Your task to perform on an android device: Open Google Chrome and open the bookmarks view Image 0: 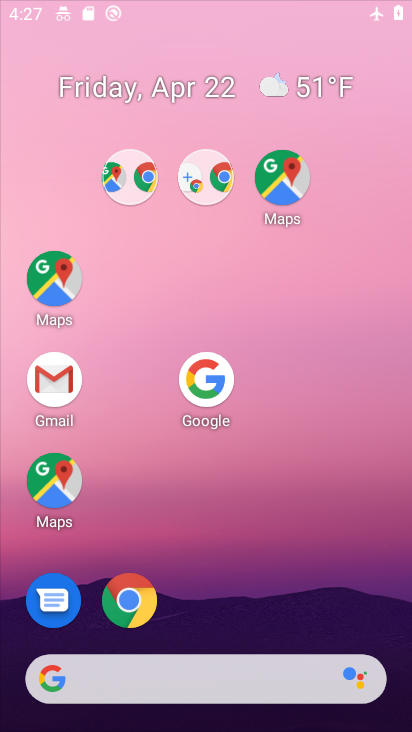
Step 0: click (104, 104)
Your task to perform on an android device: Open Google Chrome and open the bookmarks view Image 1: 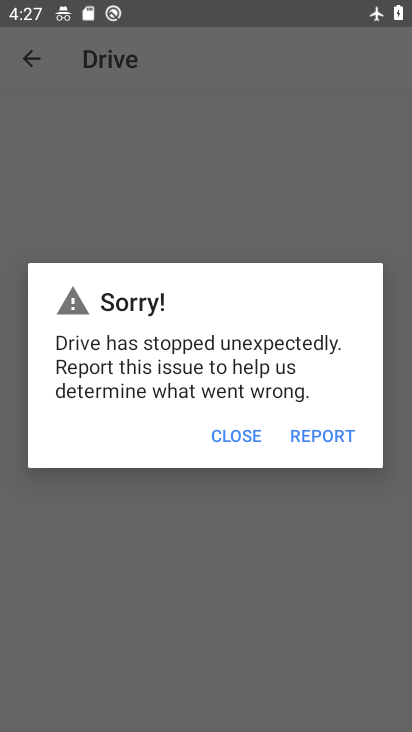
Step 1: drag from (215, 558) to (160, 154)
Your task to perform on an android device: Open Google Chrome and open the bookmarks view Image 2: 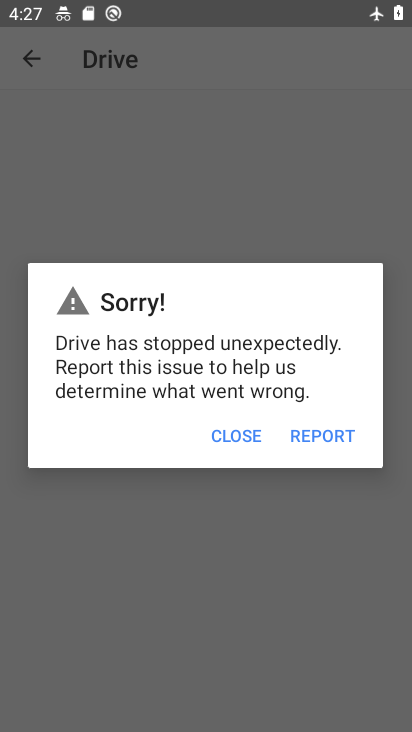
Step 2: click (246, 437)
Your task to perform on an android device: Open Google Chrome and open the bookmarks view Image 3: 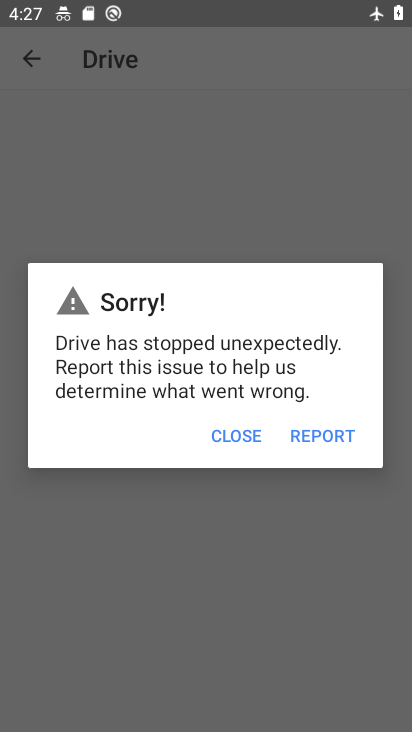
Step 3: click (246, 437)
Your task to perform on an android device: Open Google Chrome and open the bookmarks view Image 4: 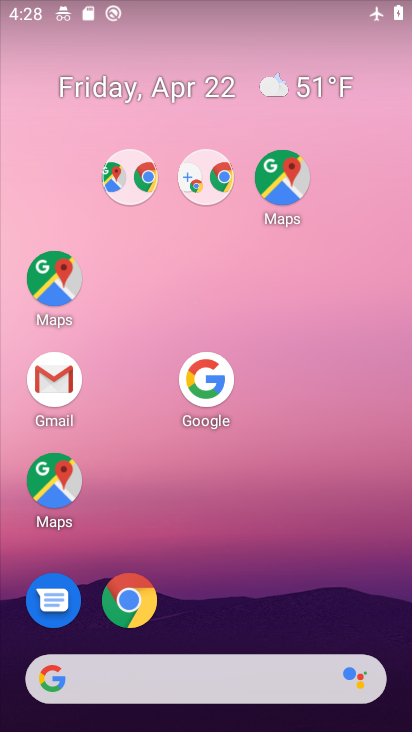
Step 4: click (132, 601)
Your task to perform on an android device: Open Google Chrome and open the bookmarks view Image 5: 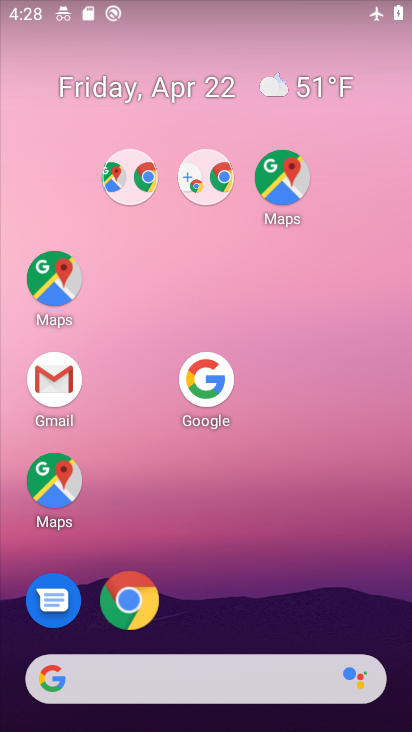
Step 5: click (139, 598)
Your task to perform on an android device: Open Google Chrome and open the bookmarks view Image 6: 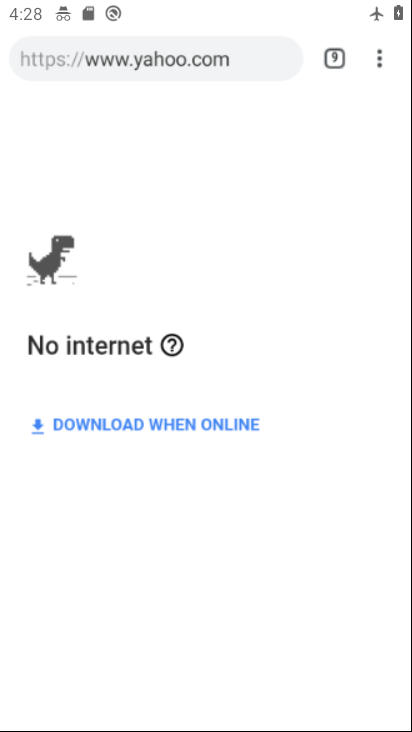
Step 6: drag from (238, 401) to (122, 128)
Your task to perform on an android device: Open Google Chrome and open the bookmarks view Image 7: 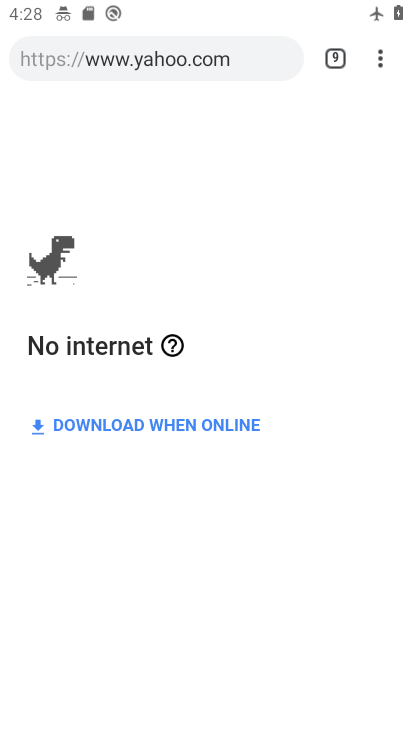
Step 7: press home button
Your task to perform on an android device: Open Google Chrome and open the bookmarks view Image 8: 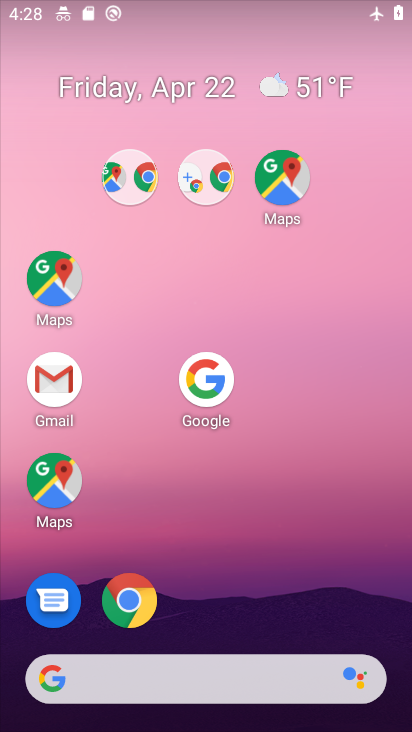
Step 8: drag from (239, 506) to (85, 125)
Your task to perform on an android device: Open Google Chrome and open the bookmarks view Image 9: 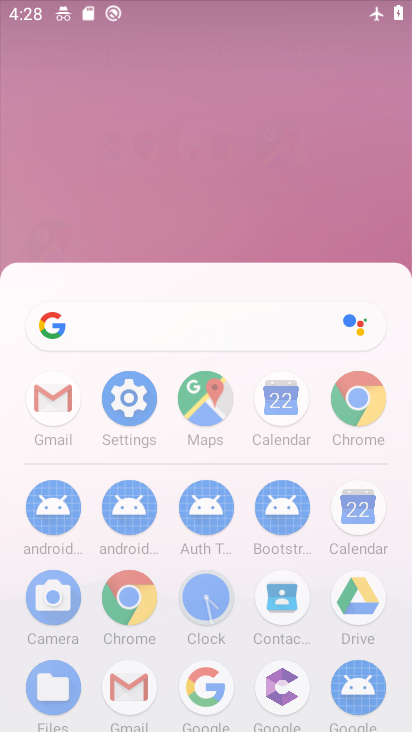
Step 9: drag from (302, 541) to (117, 43)
Your task to perform on an android device: Open Google Chrome and open the bookmarks view Image 10: 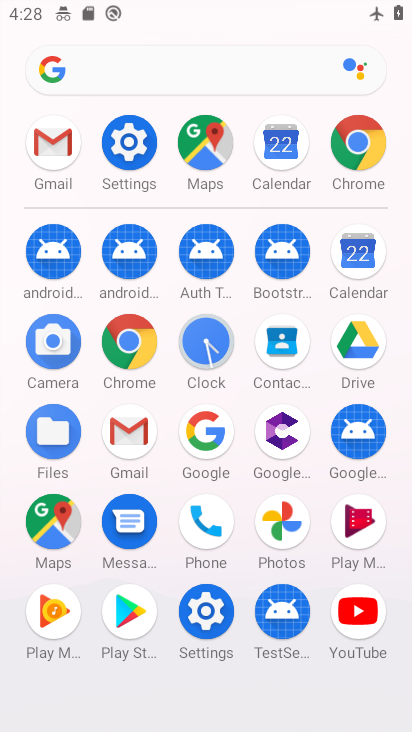
Step 10: click (361, 141)
Your task to perform on an android device: Open Google Chrome and open the bookmarks view Image 11: 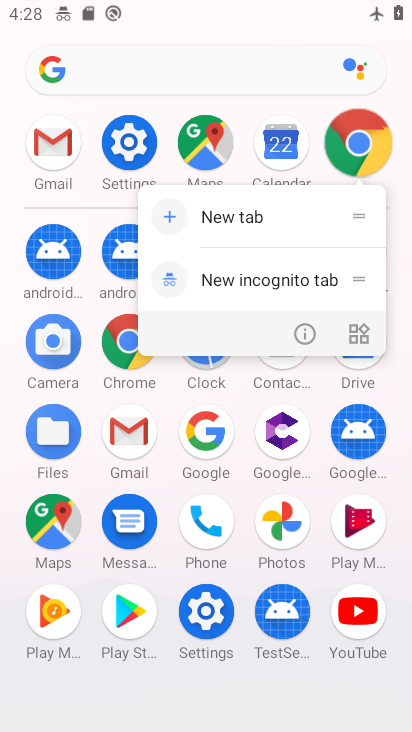
Step 11: click (362, 144)
Your task to perform on an android device: Open Google Chrome and open the bookmarks view Image 12: 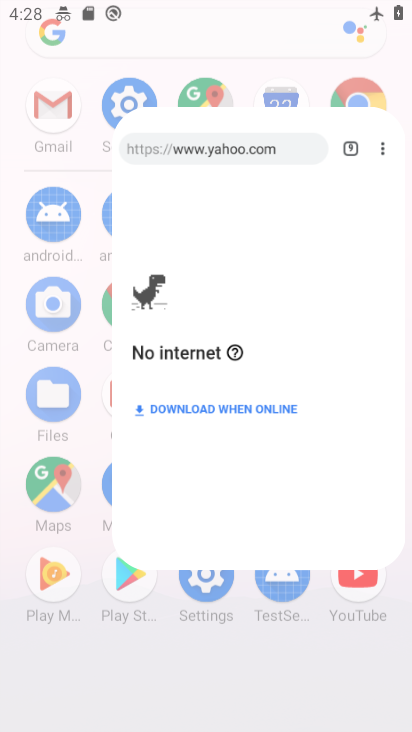
Step 12: click (214, 226)
Your task to perform on an android device: Open Google Chrome and open the bookmarks view Image 13: 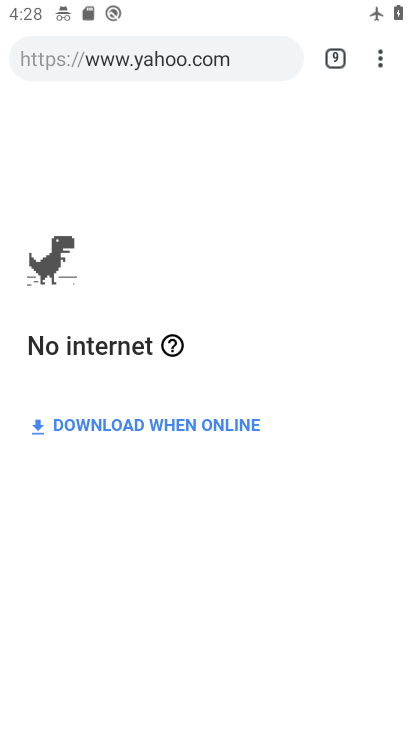
Step 13: drag from (203, 8) to (233, 476)
Your task to perform on an android device: Open Google Chrome and open the bookmarks view Image 14: 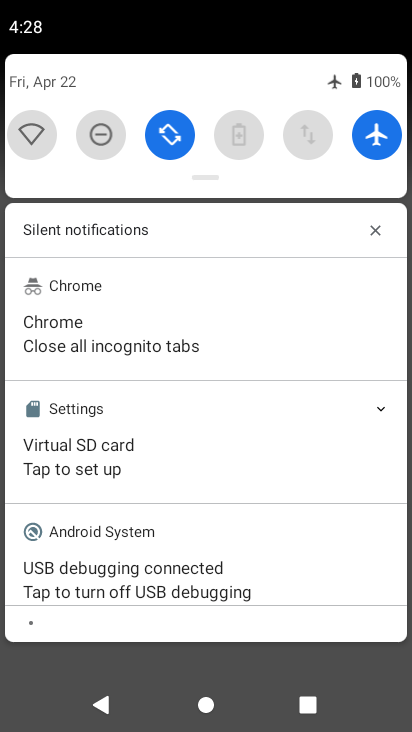
Step 14: click (370, 121)
Your task to perform on an android device: Open Google Chrome and open the bookmarks view Image 15: 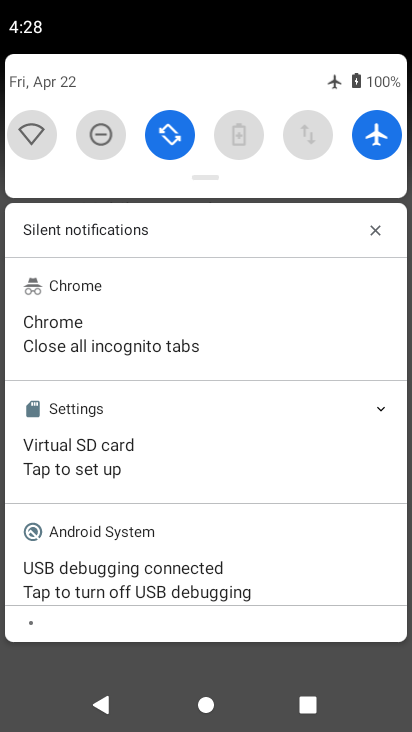
Step 15: click (374, 134)
Your task to perform on an android device: Open Google Chrome and open the bookmarks view Image 16: 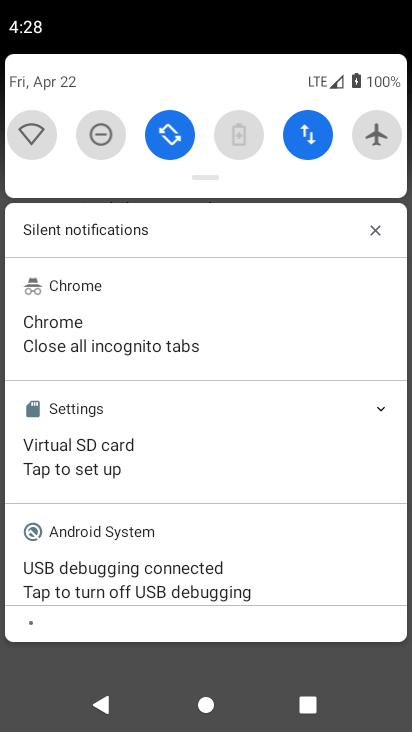
Step 16: click (34, 132)
Your task to perform on an android device: Open Google Chrome and open the bookmarks view Image 17: 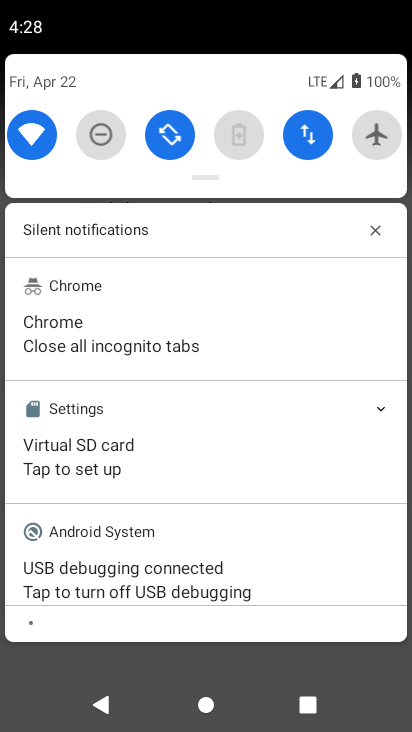
Step 17: click (373, 225)
Your task to perform on an android device: Open Google Chrome and open the bookmarks view Image 18: 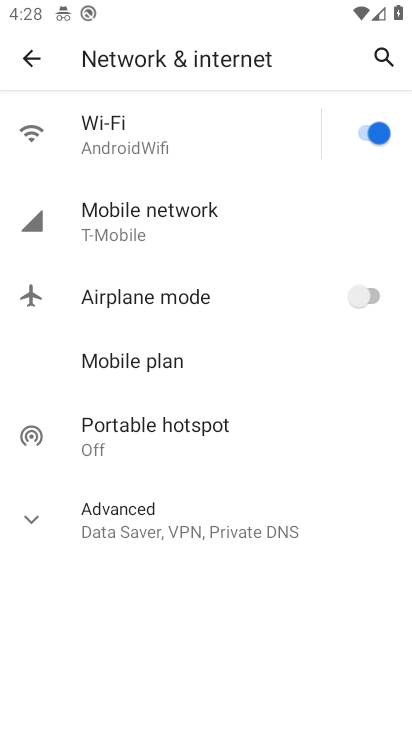
Step 18: click (31, 61)
Your task to perform on an android device: Open Google Chrome and open the bookmarks view Image 19: 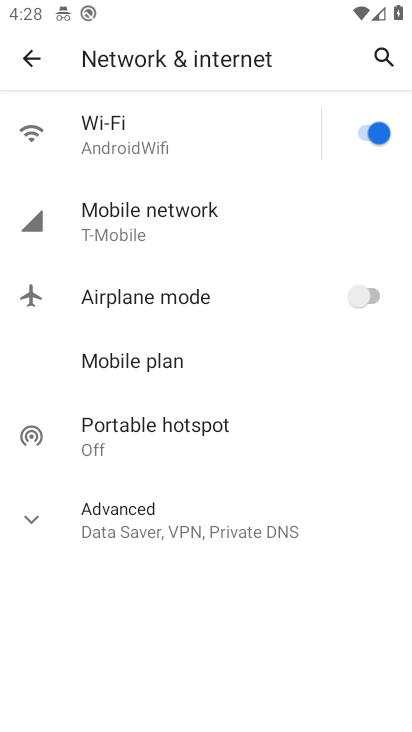
Step 19: click (32, 60)
Your task to perform on an android device: Open Google Chrome and open the bookmarks view Image 20: 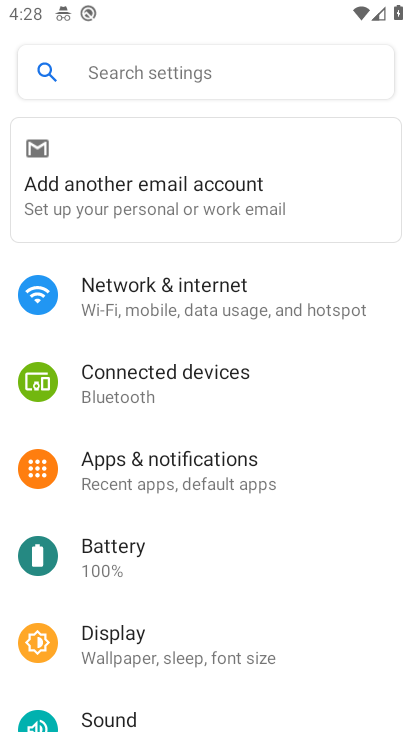
Step 20: press home button
Your task to perform on an android device: Open Google Chrome and open the bookmarks view Image 21: 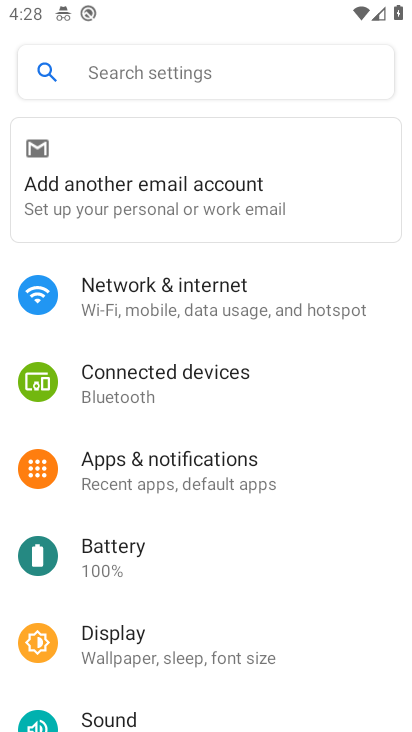
Step 21: press home button
Your task to perform on an android device: Open Google Chrome and open the bookmarks view Image 22: 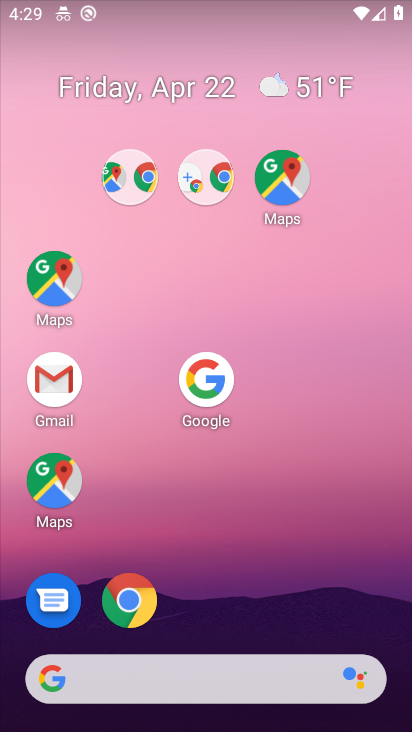
Step 22: click (385, 28)
Your task to perform on an android device: Open Google Chrome and open the bookmarks view Image 23: 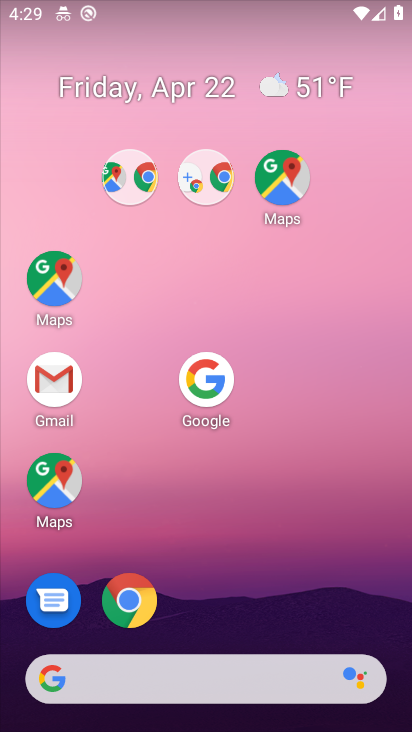
Step 23: drag from (181, 289) to (143, 174)
Your task to perform on an android device: Open Google Chrome and open the bookmarks view Image 24: 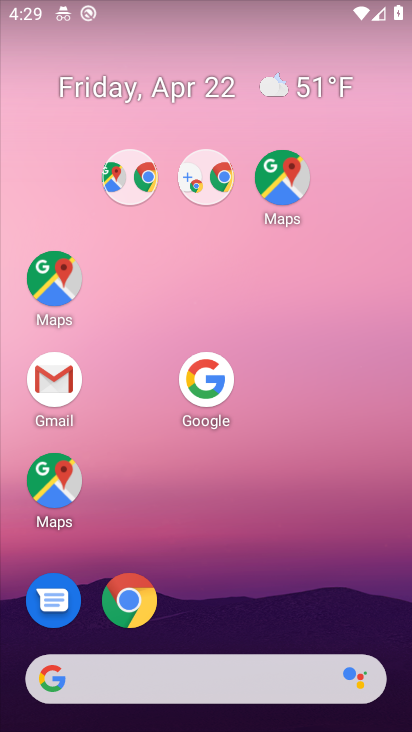
Step 24: click (142, 122)
Your task to perform on an android device: Open Google Chrome and open the bookmarks view Image 25: 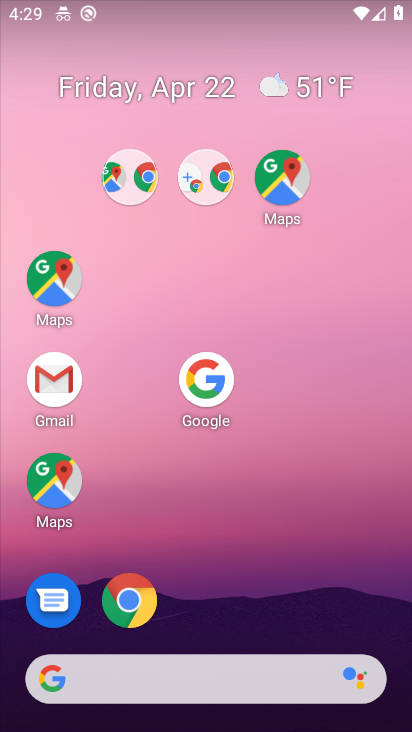
Step 25: drag from (260, 580) to (106, 16)
Your task to perform on an android device: Open Google Chrome and open the bookmarks view Image 26: 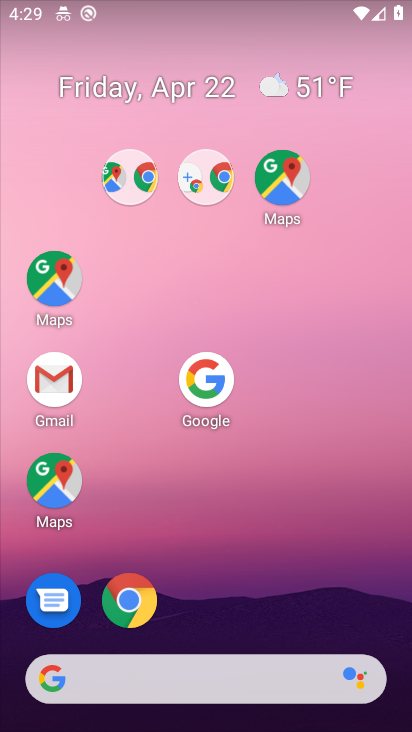
Step 26: drag from (179, 106) to (216, 0)
Your task to perform on an android device: Open Google Chrome and open the bookmarks view Image 27: 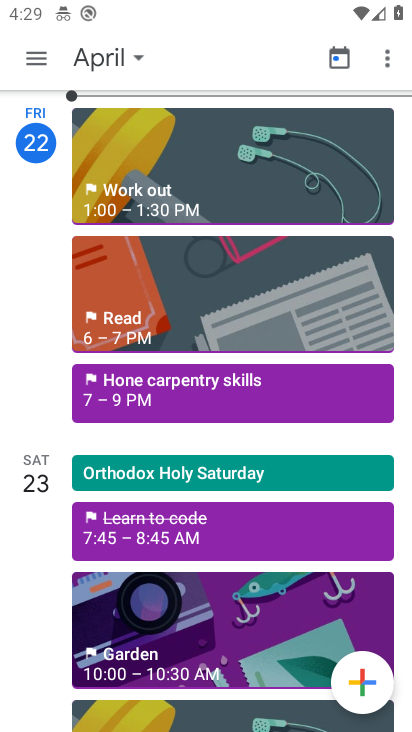
Step 27: click (209, 121)
Your task to perform on an android device: Open Google Chrome and open the bookmarks view Image 28: 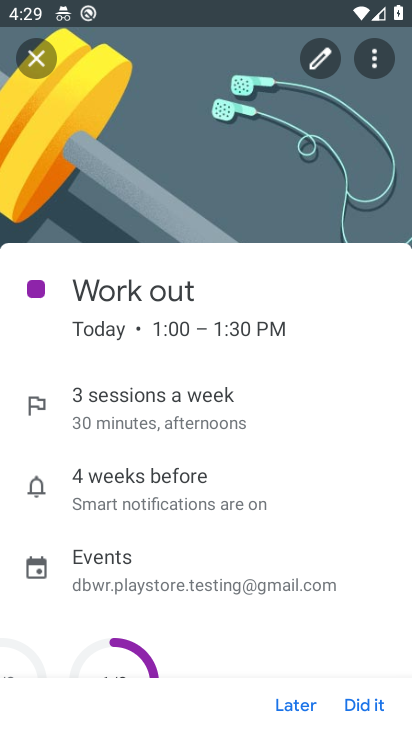
Step 28: click (366, 713)
Your task to perform on an android device: Open Google Chrome and open the bookmarks view Image 29: 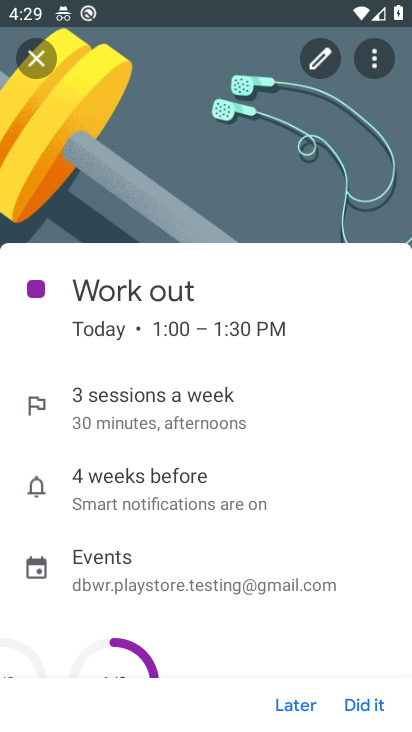
Step 29: click (376, 705)
Your task to perform on an android device: Open Google Chrome and open the bookmarks view Image 30: 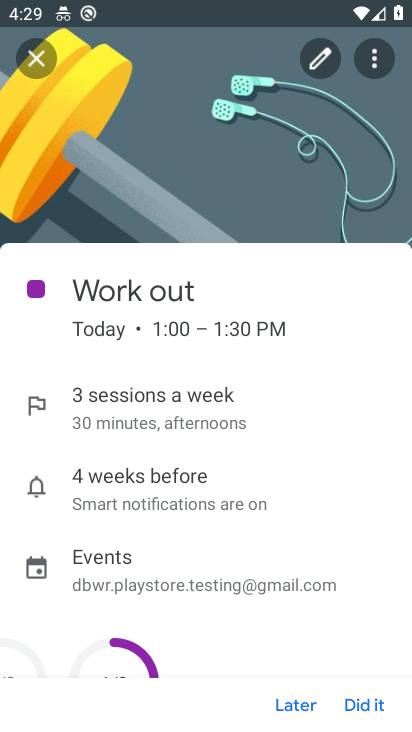
Step 30: press home button
Your task to perform on an android device: Open Google Chrome and open the bookmarks view Image 31: 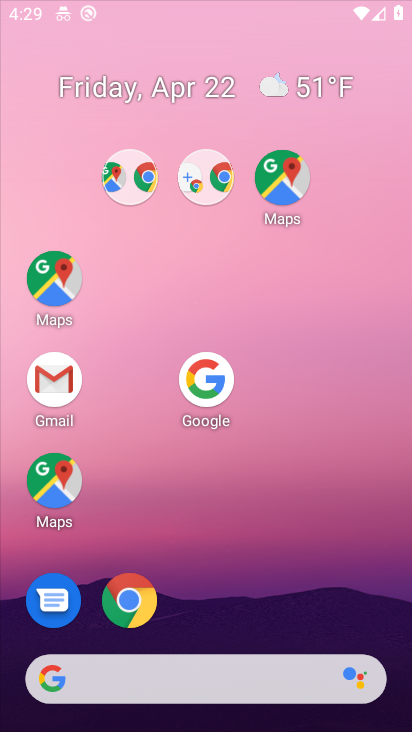
Step 31: press home button
Your task to perform on an android device: Open Google Chrome and open the bookmarks view Image 32: 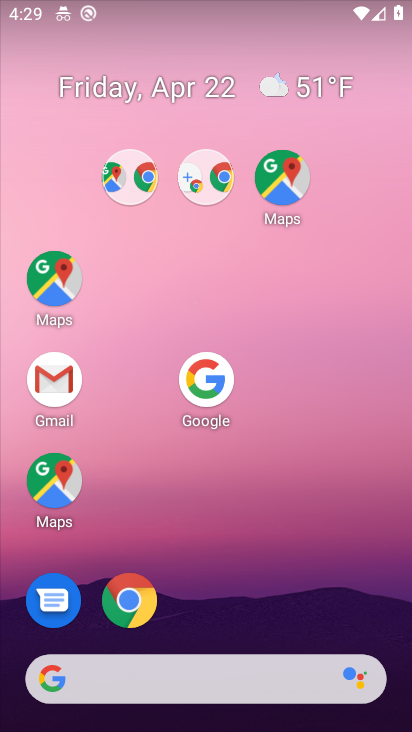
Step 32: press home button
Your task to perform on an android device: Open Google Chrome and open the bookmarks view Image 33: 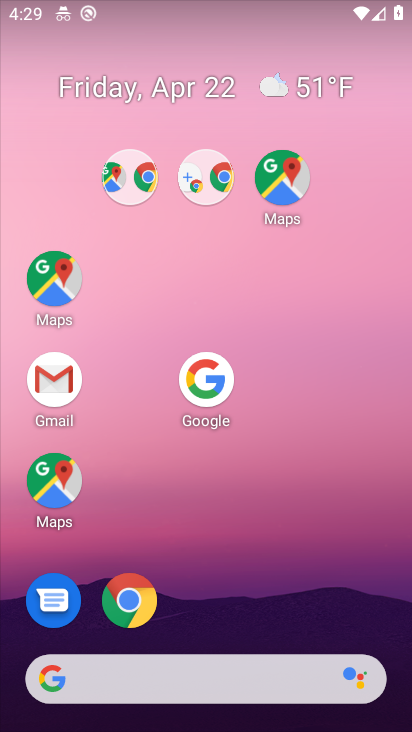
Step 33: click (399, 460)
Your task to perform on an android device: Open Google Chrome and open the bookmarks view Image 34: 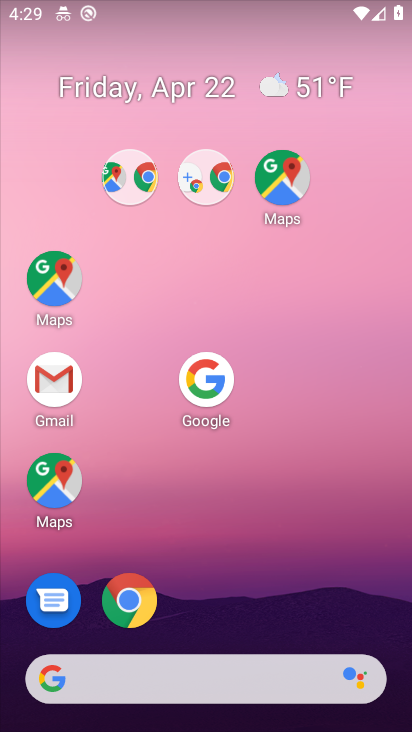
Step 34: drag from (344, 569) to (114, 99)
Your task to perform on an android device: Open Google Chrome and open the bookmarks view Image 35: 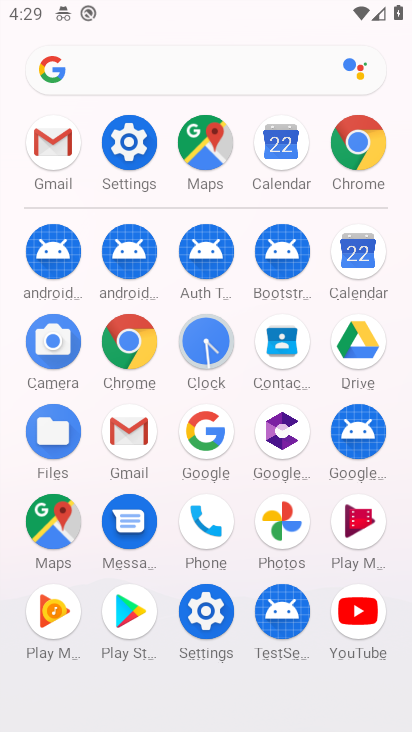
Step 35: click (366, 145)
Your task to perform on an android device: Open Google Chrome and open the bookmarks view Image 36: 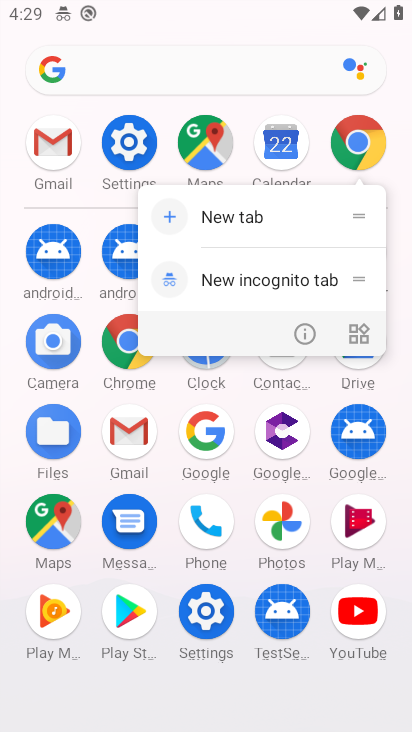
Step 36: click (367, 146)
Your task to perform on an android device: Open Google Chrome and open the bookmarks view Image 37: 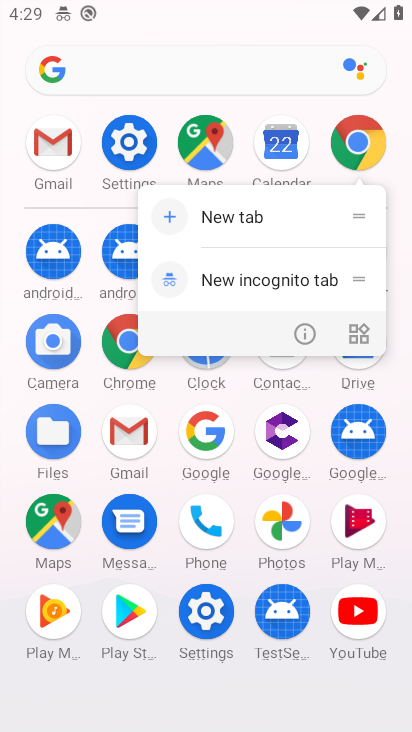
Step 37: click (367, 146)
Your task to perform on an android device: Open Google Chrome and open the bookmarks view Image 38: 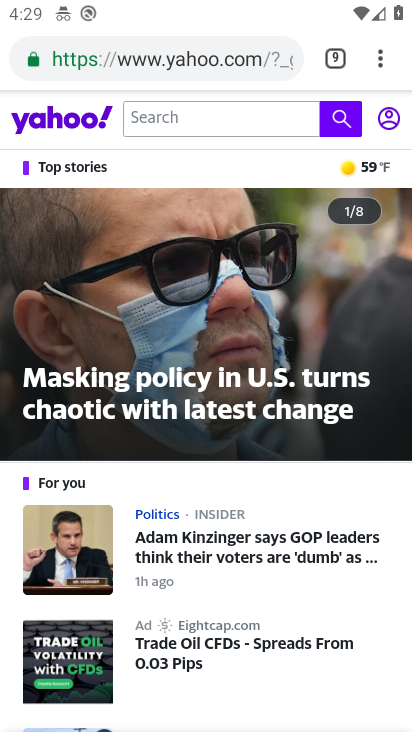
Step 38: task complete